Your task to perform on an android device: Do I have any events today? Image 0: 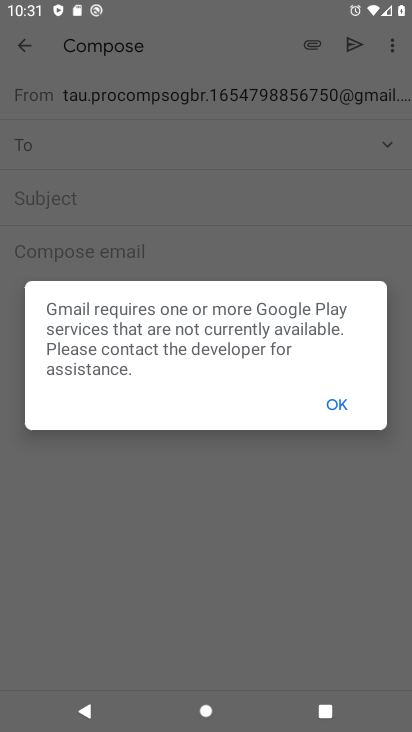
Step 0: press back button
Your task to perform on an android device: Do I have any events today? Image 1: 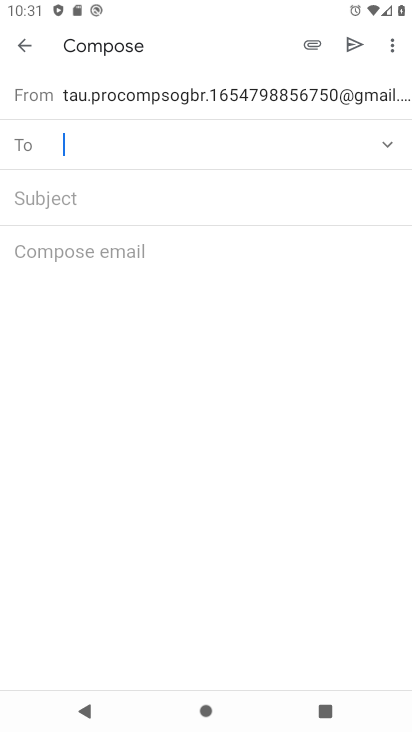
Step 1: press back button
Your task to perform on an android device: Do I have any events today? Image 2: 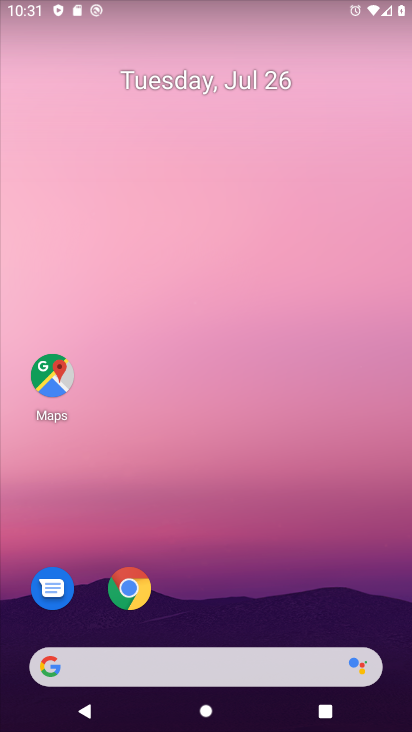
Step 2: drag from (199, 595) to (289, 29)
Your task to perform on an android device: Do I have any events today? Image 3: 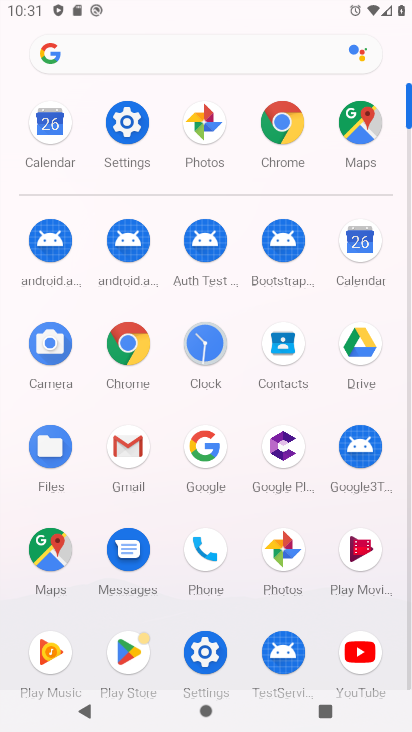
Step 3: click (360, 245)
Your task to perform on an android device: Do I have any events today? Image 4: 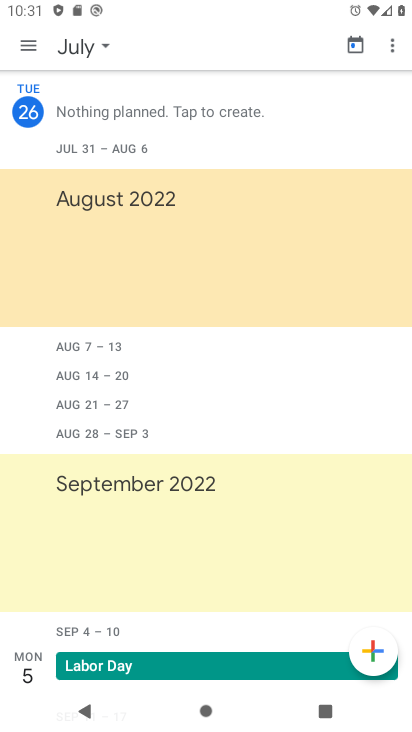
Step 4: task complete